Your task to perform on an android device: Search for flights from Helsinki to Tokyo Image 0: 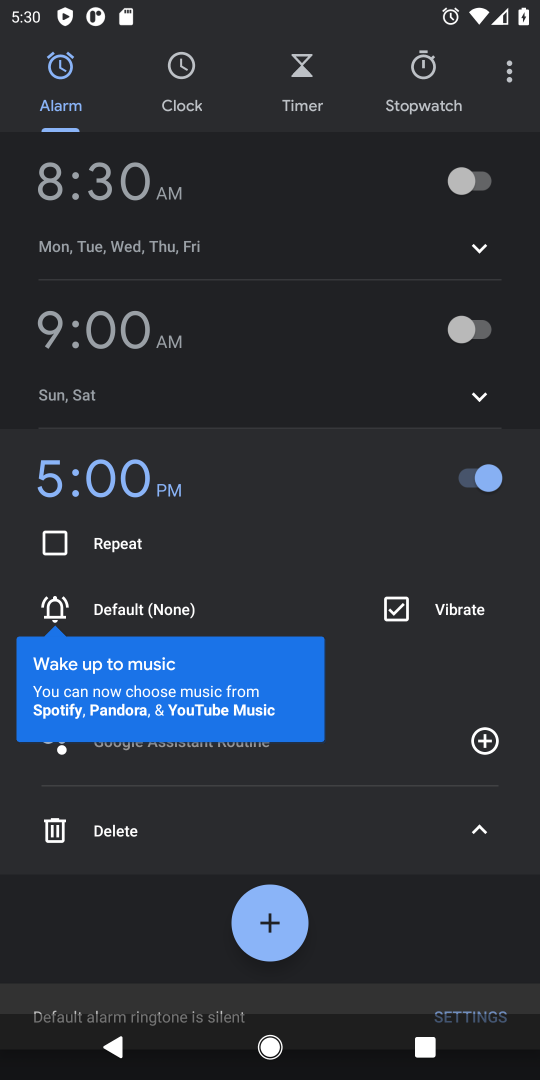
Step 0: press home button
Your task to perform on an android device: Search for flights from Helsinki to Tokyo Image 1: 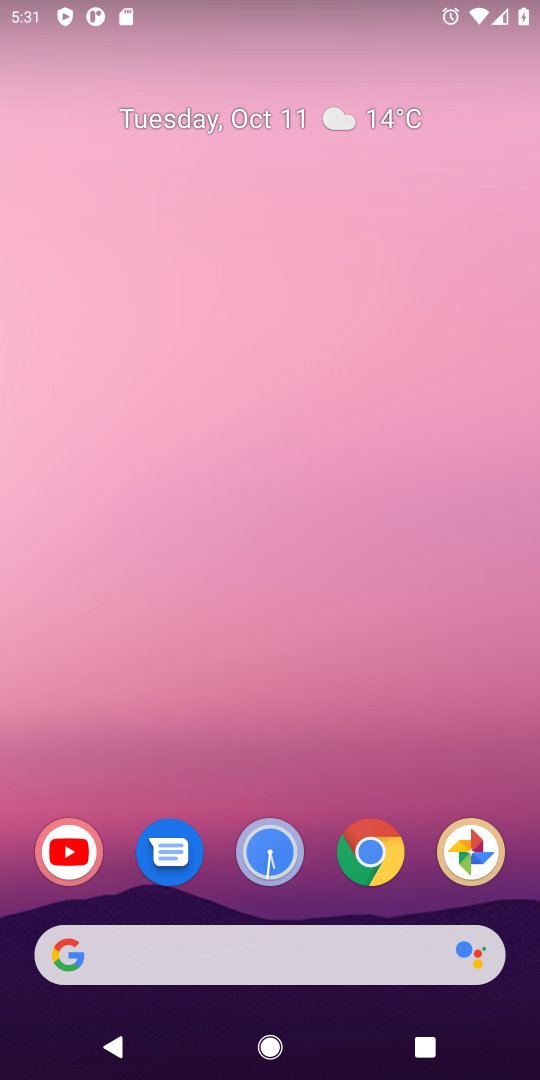
Step 1: click (359, 847)
Your task to perform on an android device: Search for flights from Helsinki to Tokyo Image 2: 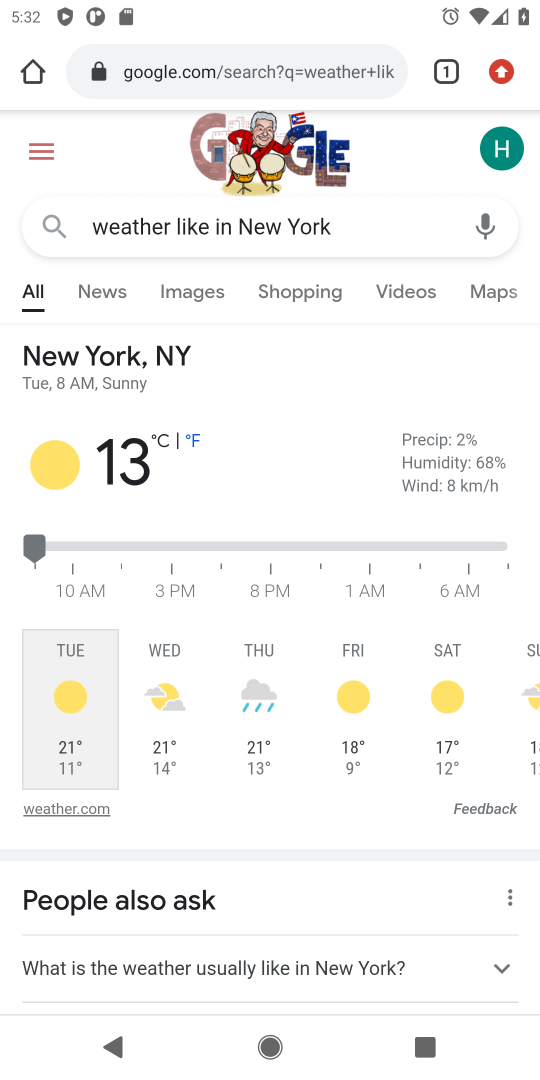
Step 2: click (188, 76)
Your task to perform on an android device: Search for flights from Helsinki to Tokyo Image 3: 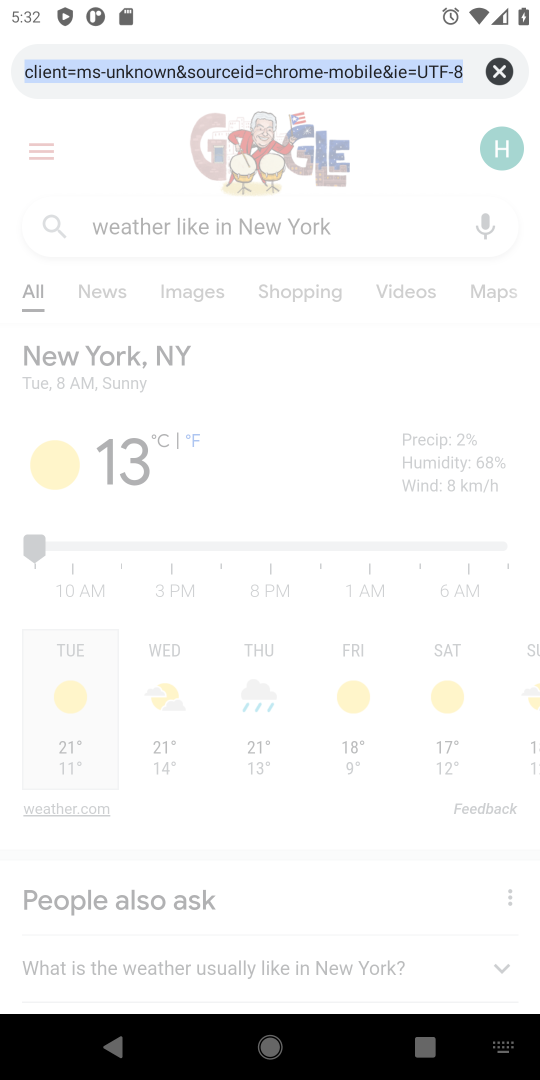
Step 3: type "flights from Helsinki to Tokyo"
Your task to perform on an android device: Search for flights from Helsinki to Tokyo Image 4: 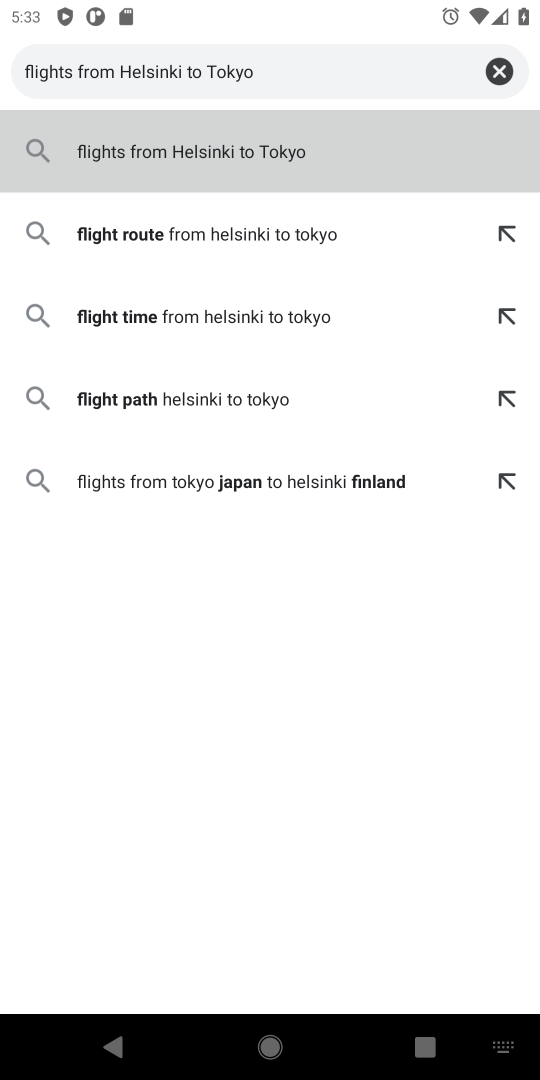
Step 4: click (329, 155)
Your task to perform on an android device: Search for flights from Helsinki to Tokyo Image 5: 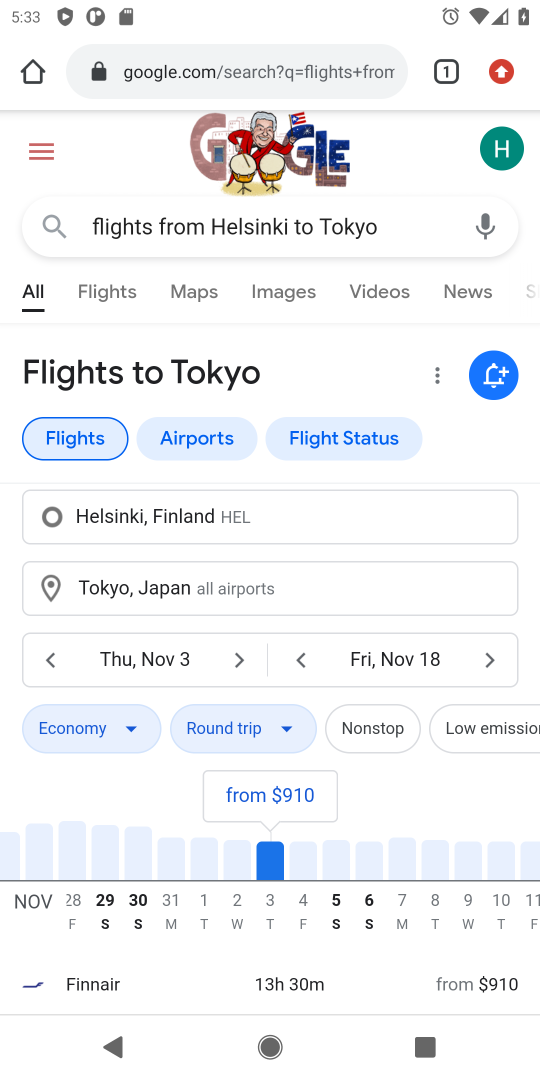
Step 5: task complete